Your task to perform on an android device: change the clock display to digital Image 0: 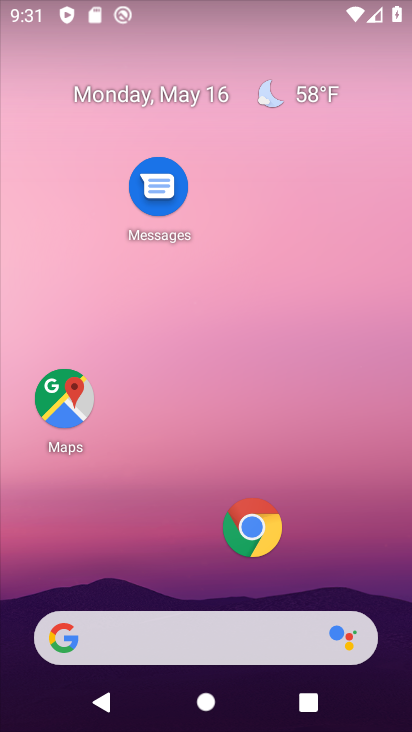
Step 0: drag from (172, 579) to (180, 191)
Your task to perform on an android device: change the clock display to digital Image 1: 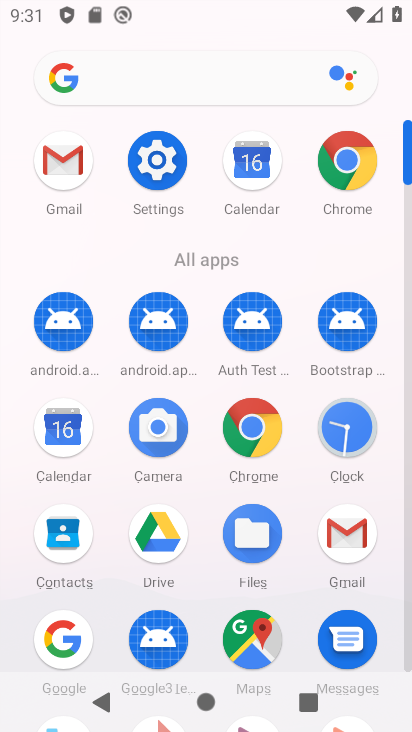
Step 1: click (346, 426)
Your task to perform on an android device: change the clock display to digital Image 2: 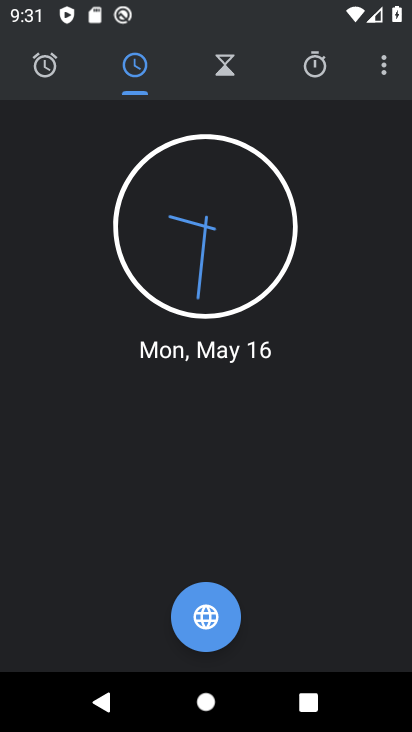
Step 2: click (377, 67)
Your task to perform on an android device: change the clock display to digital Image 3: 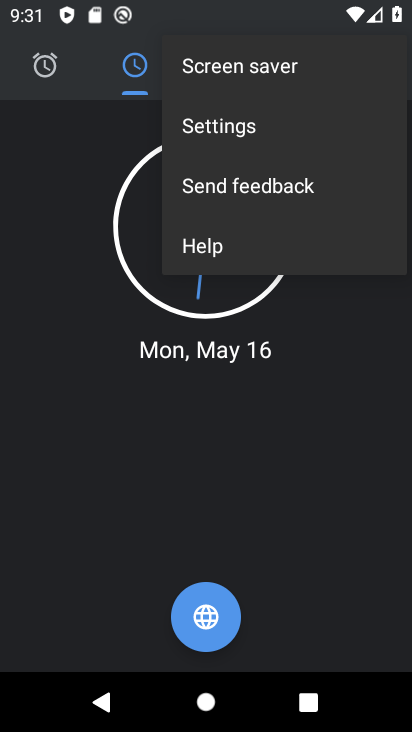
Step 3: click (248, 118)
Your task to perform on an android device: change the clock display to digital Image 4: 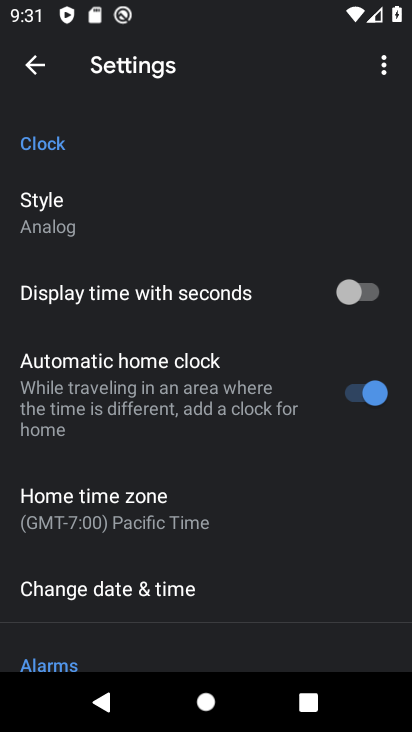
Step 4: click (86, 200)
Your task to perform on an android device: change the clock display to digital Image 5: 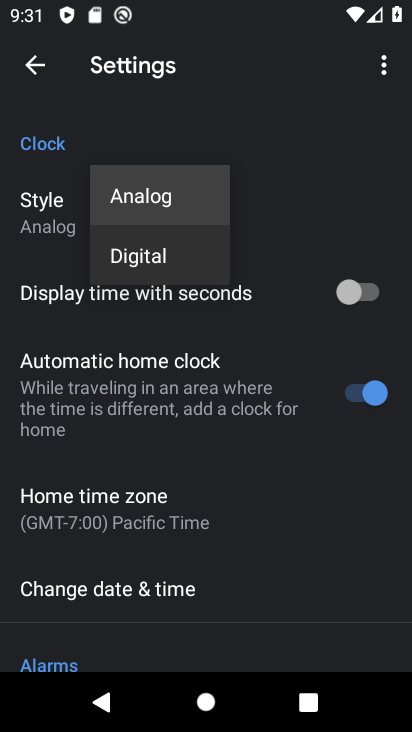
Step 5: click (138, 251)
Your task to perform on an android device: change the clock display to digital Image 6: 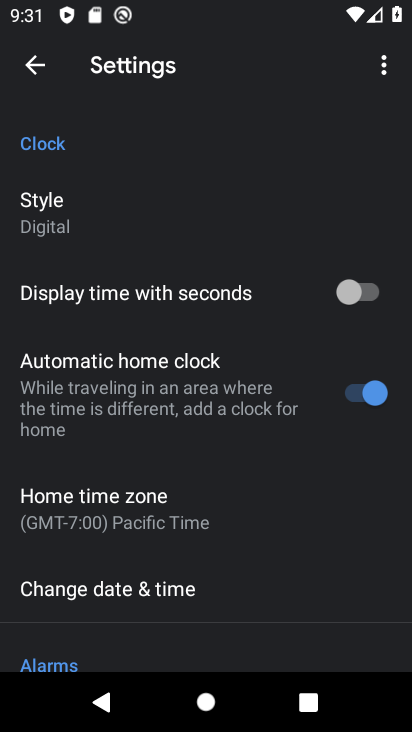
Step 6: task complete